Your task to perform on an android device: turn on the 12-hour format for clock Image 0: 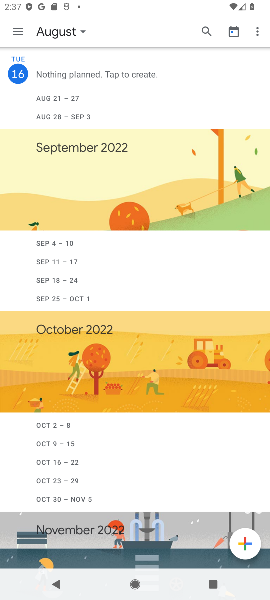
Step 0: press home button
Your task to perform on an android device: turn on the 12-hour format for clock Image 1: 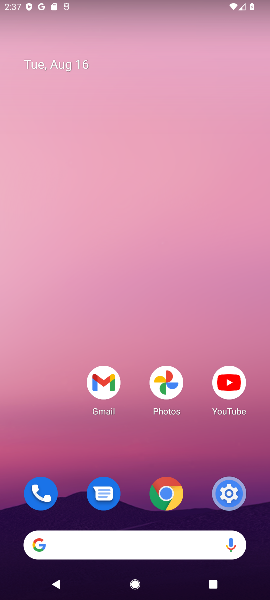
Step 1: drag from (61, 448) to (88, 33)
Your task to perform on an android device: turn on the 12-hour format for clock Image 2: 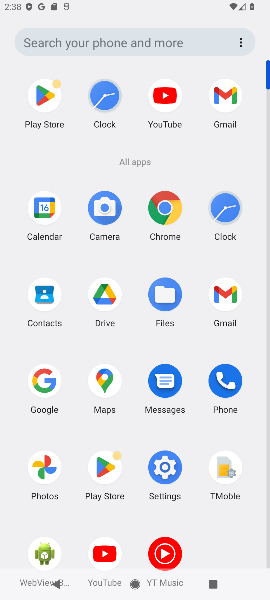
Step 2: click (222, 207)
Your task to perform on an android device: turn on the 12-hour format for clock Image 3: 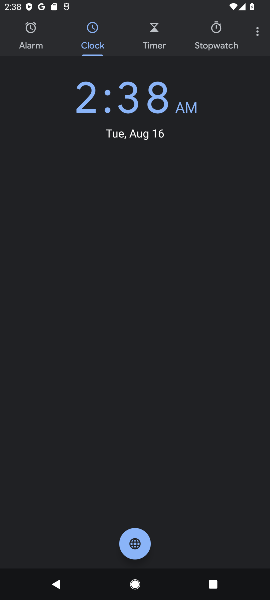
Step 3: click (257, 33)
Your task to perform on an android device: turn on the 12-hour format for clock Image 4: 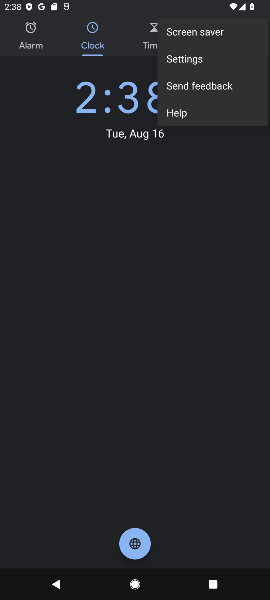
Step 4: click (199, 61)
Your task to perform on an android device: turn on the 12-hour format for clock Image 5: 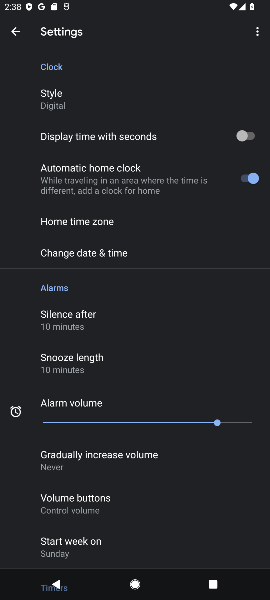
Step 5: drag from (172, 323) to (189, 226)
Your task to perform on an android device: turn on the 12-hour format for clock Image 6: 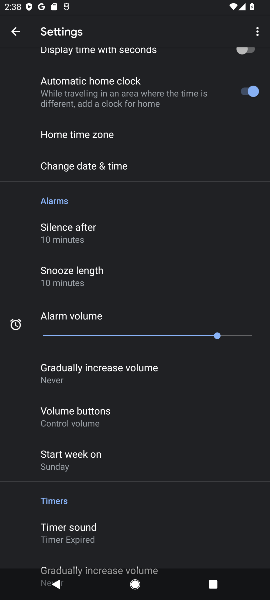
Step 6: drag from (177, 370) to (203, 232)
Your task to perform on an android device: turn on the 12-hour format for clock Image 7: 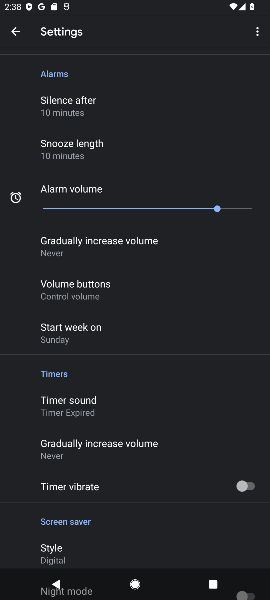
Step 7: drag from (199, 128) to (190, 253)
Your task to perform on an android device: turn on the 12-hour format for clock Image 8: 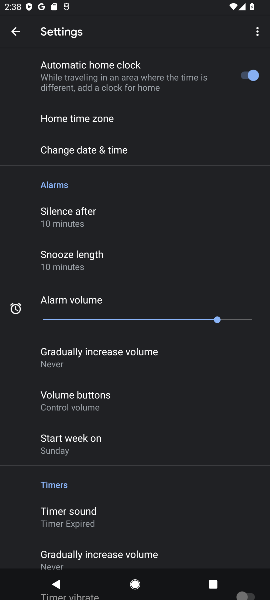
Step 8: click (168, 153)
Your task to perform on an android device: turn on the 12-hour format for clock Image 9: 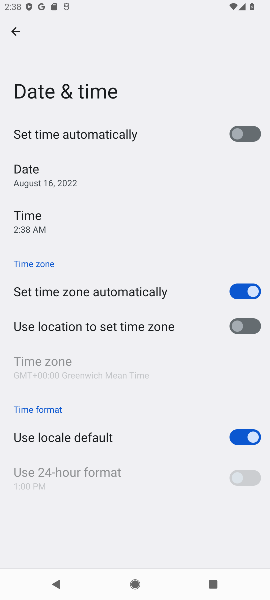
Step 9: task complete